Your task to perform on an android device: turn off improve location accuracy Image 0: 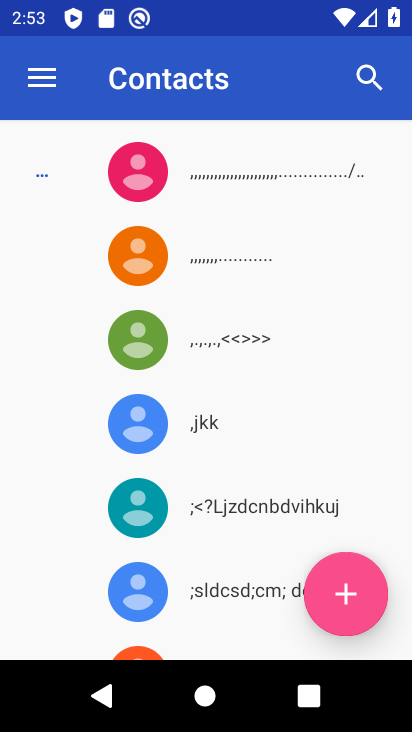
Step 0: press home button
Your task to perform on an android device: turn off improve location accuracy Image 1: 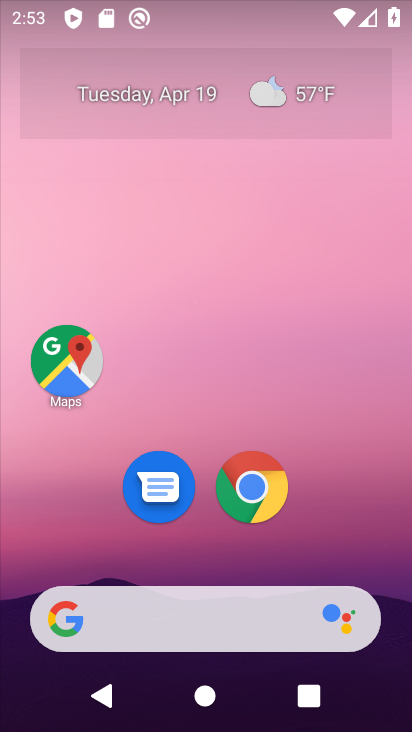
Step 1: drag from (362, 526) to (332, 158)
Your task to perform on an android device: turn off improve location accuracy Image 2: 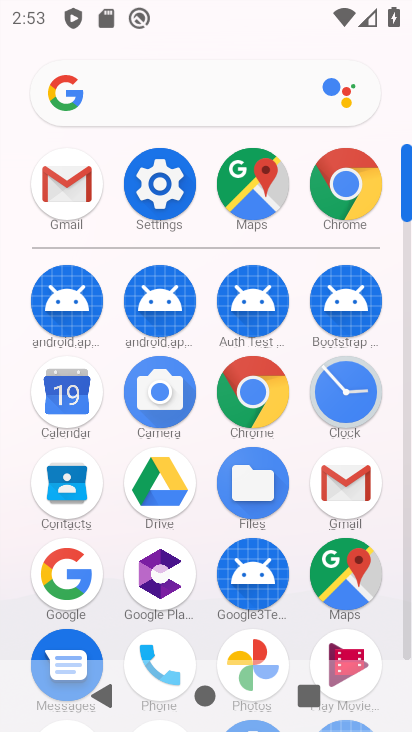
Step 2: click (166, 186)
Your task to perform on an android device: turn off improve location accuracy Image 3: 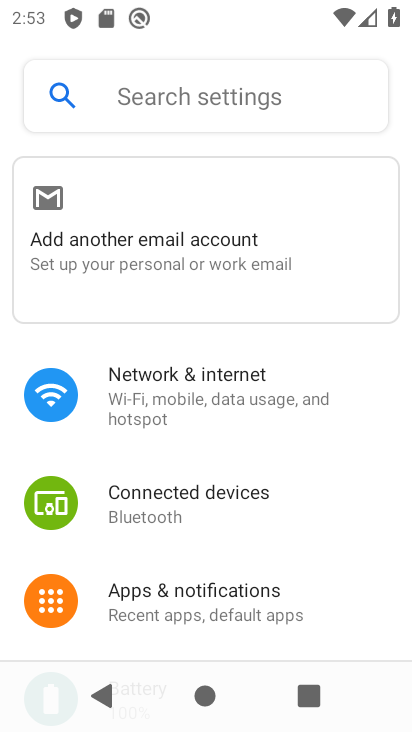
Step 3: drag from (298, 576) to (322, 249)
Your task to perform on an android device: turn off improve location accuracy Image 4: 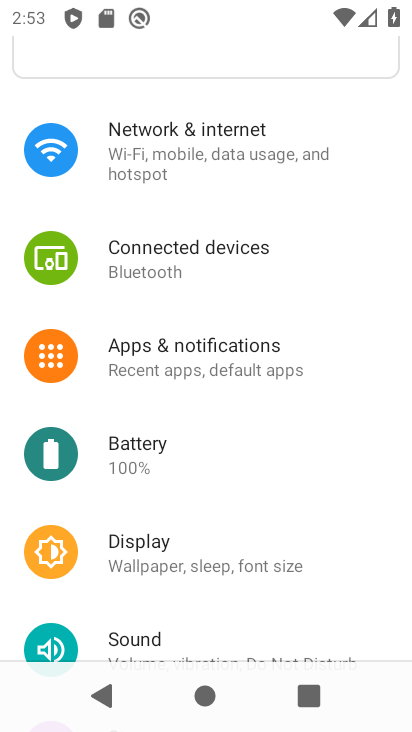
Step 4: drag from (326, 467) to (326, 228)
Your task to perform on an android device: turn off improve location accuracy Image 5: 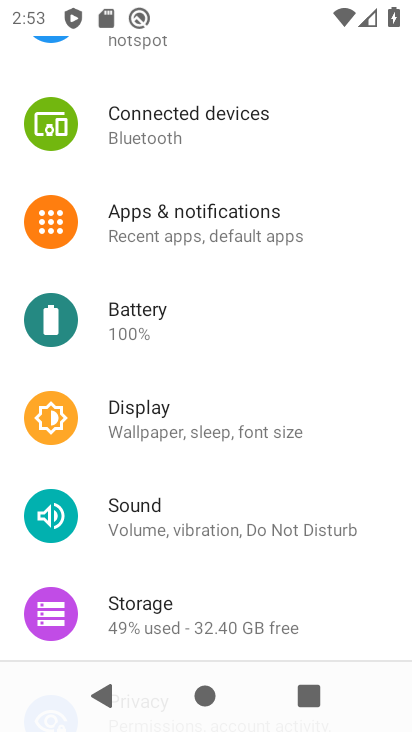
Step 5: drag from (343, 489) to (339, 223)
Your task to perform on an android device: turn off improve location accuracy Image 6: 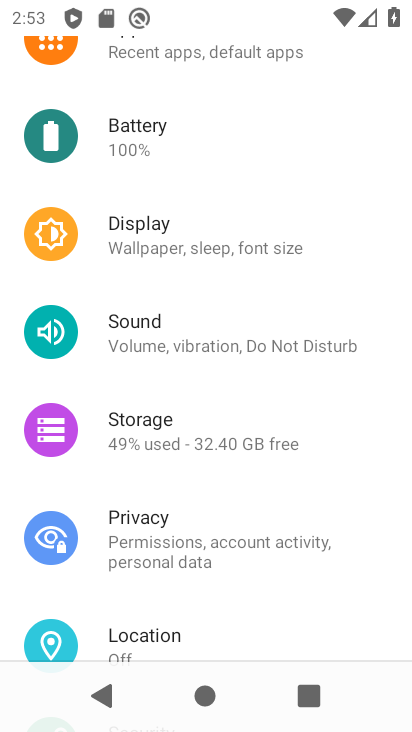
Step 6: drag from (275, 607) to (327, 366)
Your task to perform on an android device: turn off improve location accuracy Image 7: 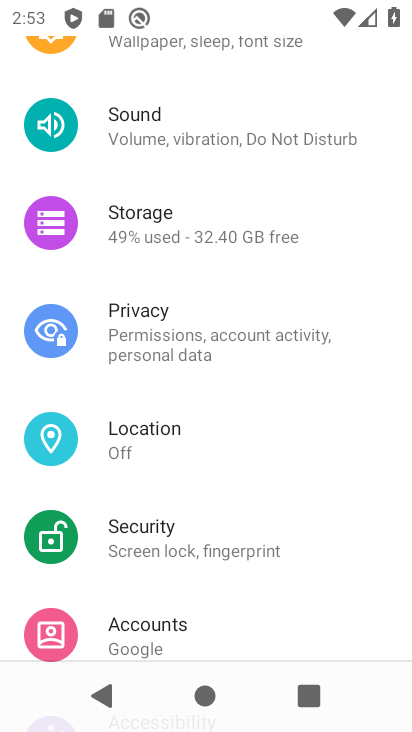
Step 7: click (179, 439)
Your task to perform on an android device: turn off improve location accuracy Image 8: 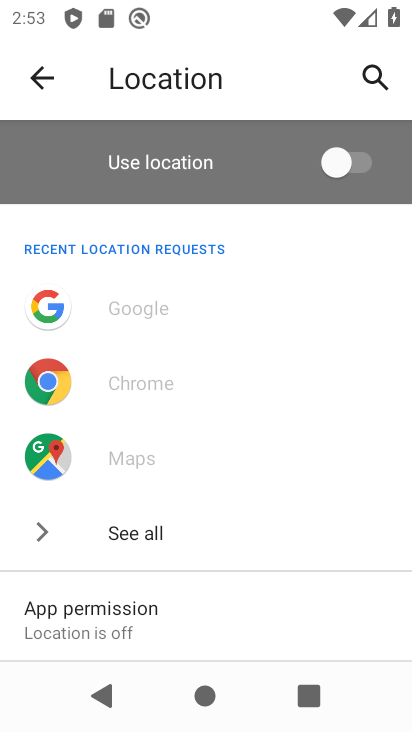
Step 8: drag from (249, 603) to (246, 359)
Your task to perform on an android device: turn off improve location accuracy Image 9: 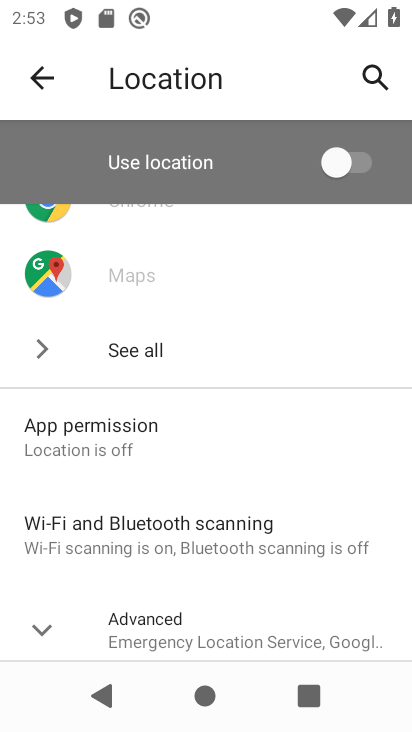
Step 9: click (229, 622)
Your task to perform on an android device: turn off improve location accuracy Image 10: 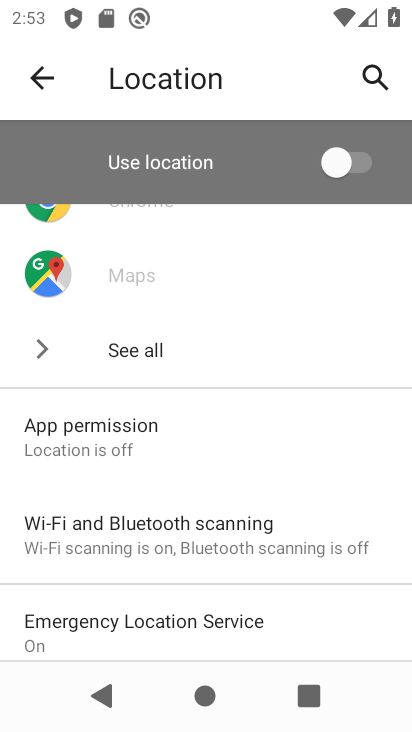
Step 10: drag from (318, 633) to (326, 403)
Your task to perform on an android device: turn off improve location accuracy Image 11: 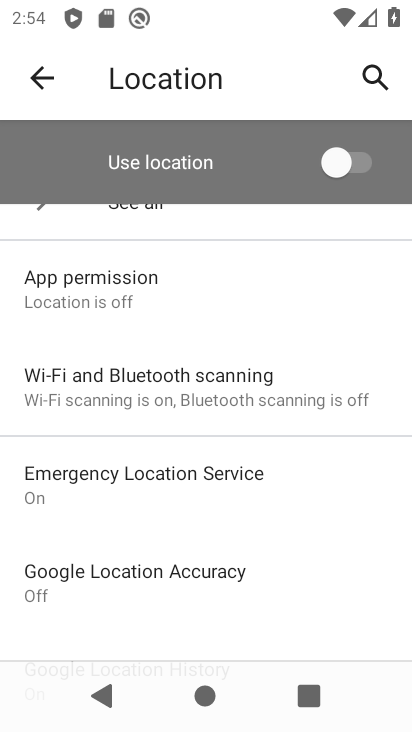
Step 11: click (184, 571)
Your task to perform on an android device: turn off improve location accuracy Image 12: 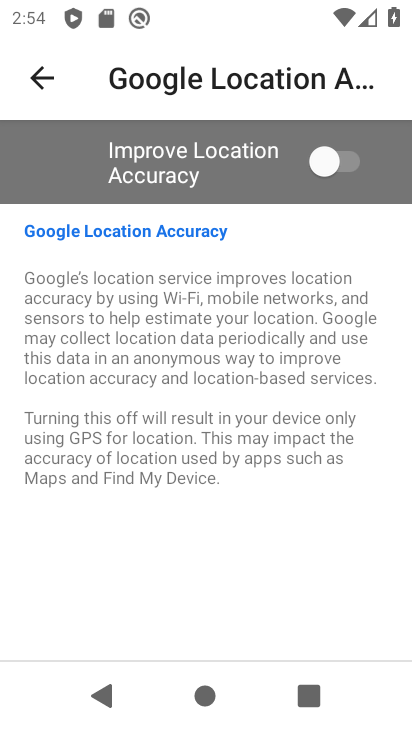
Step 12: task complete